Your task to perform on an android device: allow notifications from all sites in the chrome app Image 0: 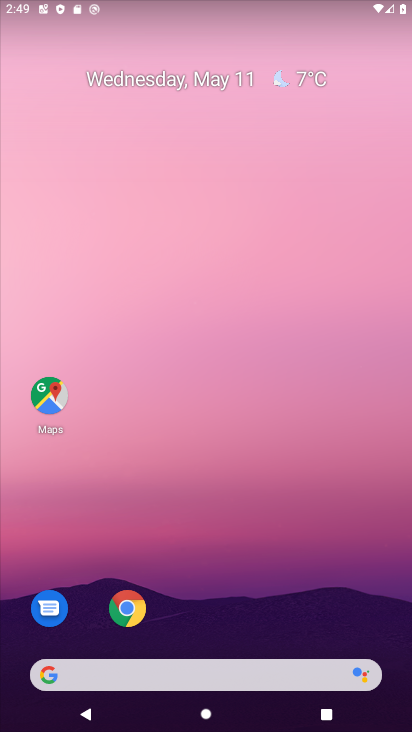
Step 0: click (140, 609)
Your task to perform on an android device: allow notifications from all sites in the chrome app Image 1: 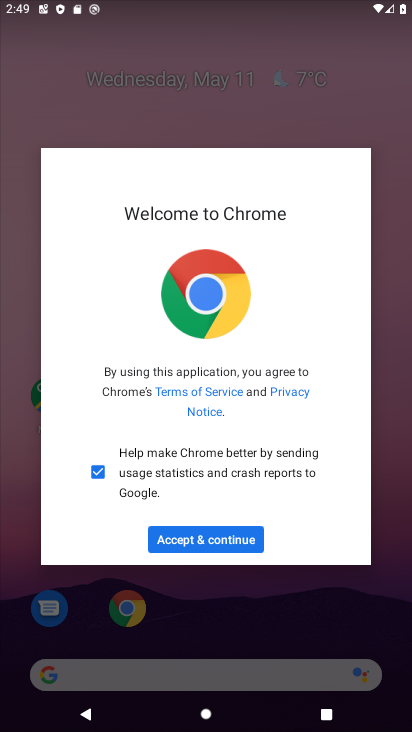
Step 1: click (236, 540)
Your task to perform on an android device: allow notifications from all sites in the chrome app Image 2: 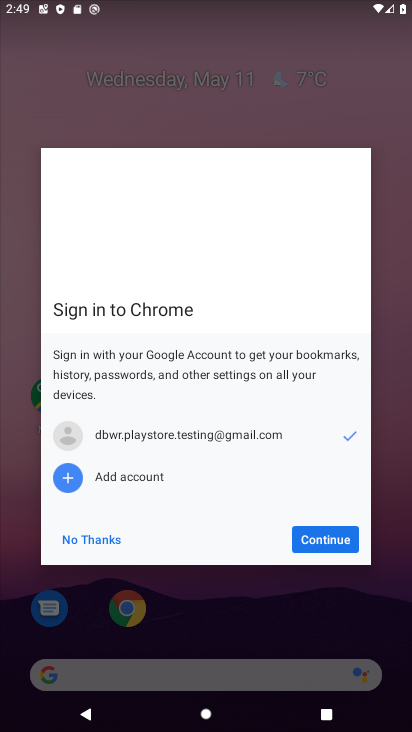
Step 2: click (328, 542)
Your task to perform on an android device: allow notifications from all sites in the chrome app Image 3: 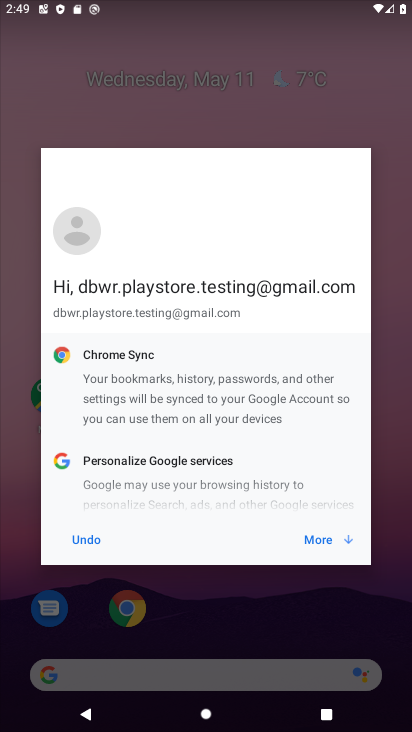
Step 3: click (322, 545)
Your task to perform on an android device: allow notifications from all sites in the chrome app Image 4: 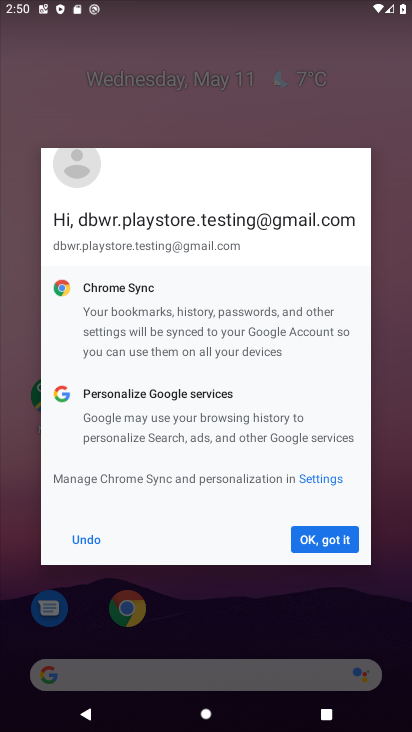
Step 4: click (315, 544)
Your task to perform on an android device: allow notifications from all sites in the chrome app Image 5: 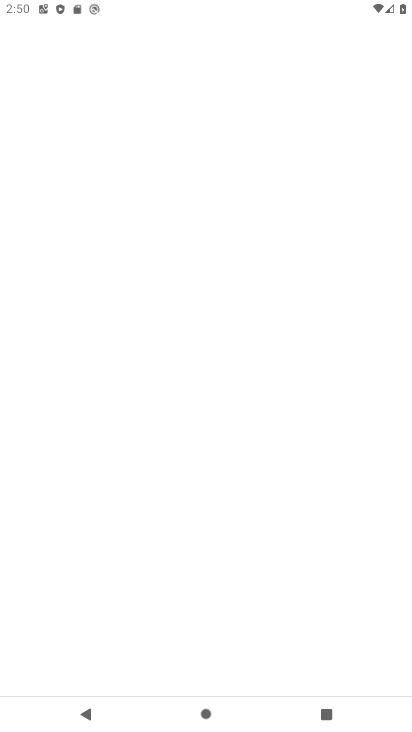
Step 5: press home button
Your task to perform on an android device: allow notifications from all sites in the chrome app Image 6: 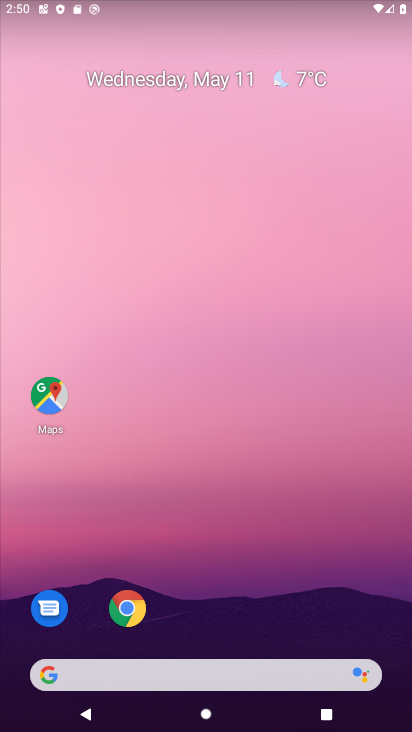
Step 6: click (276, 619)
Your task to perform on an android device: allow notifications from all sites in the chrome app Image 7: 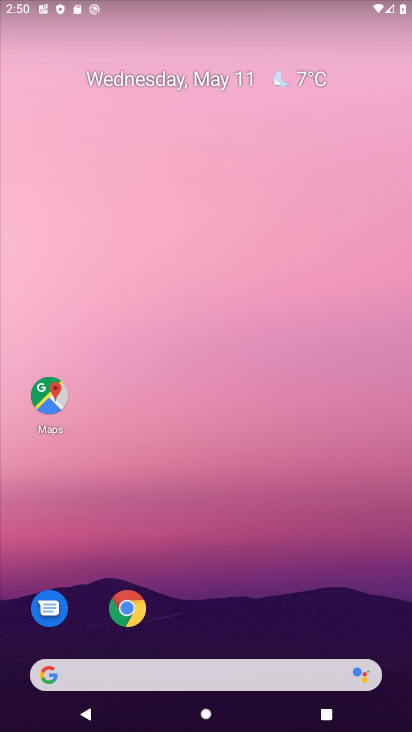
Step 7: click (128, 607)
Your task to perform on an android device: allow notifications from all sites in the chrome app Image 8: 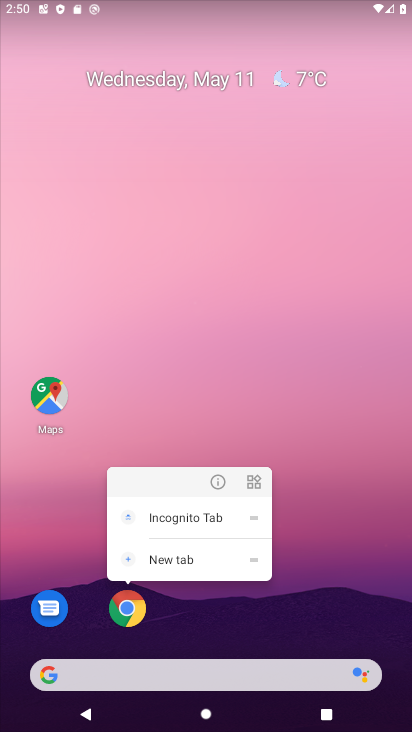
Step 8: click (132, 608)
Your task to perform on an android device: allow notifications from all sites in the chrome app Image 9: 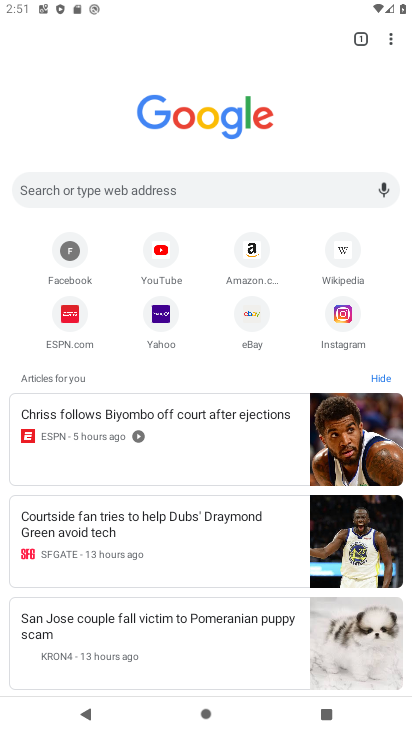
Step 9: drag from (392, 42) to (294, 323)
Your task to perform on an android device: allow notifications from all sites in the chrome app Image 10: 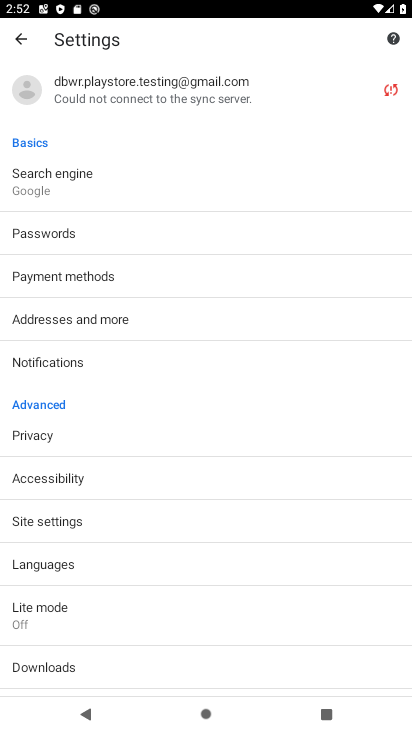
Step 10: click (78, 369)
Your task to perform on an android device: allow notifications from all sites in the chrome app Image 11: 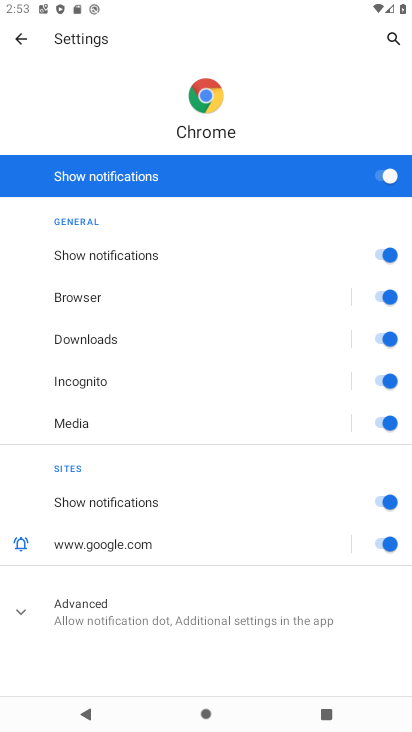
Step 11: task complete